Your task to perform on an android device: set default search engine in the chrome app Image 0: 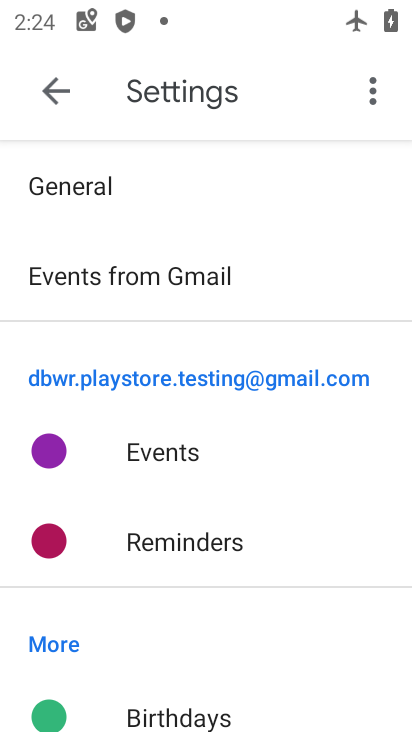
Step 0: press home button
Your task to perform on an android device: set default search engine in the chrome app Image 1: 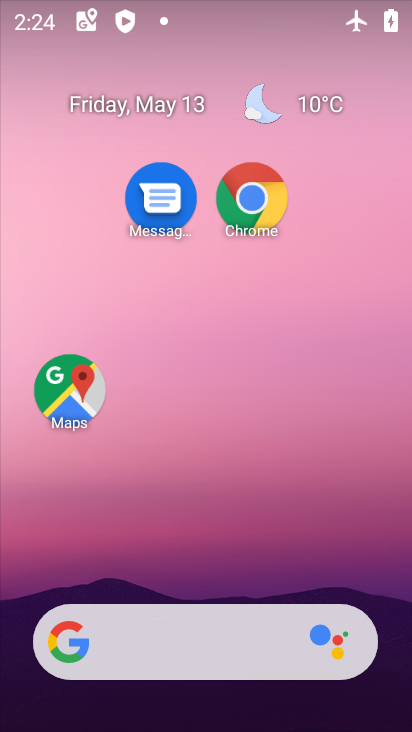
Step 1: click (264, 183)
Your task to perform on an android device: set default search engine in the chrome app Image 2: 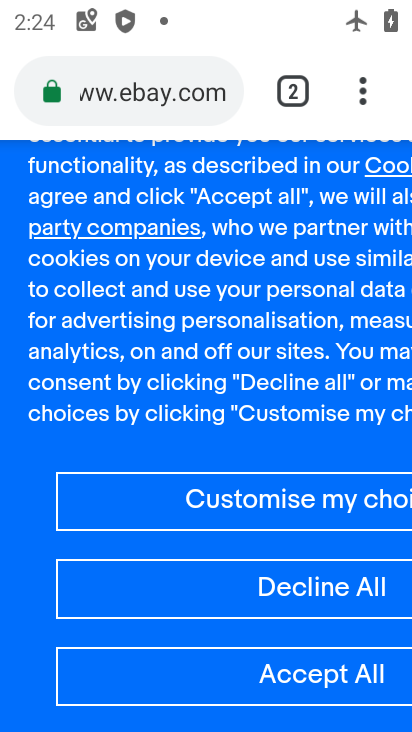
Step 2: click (373, 89)
Your task to perform on an android device: set default search engine in the chrome app Image 3: 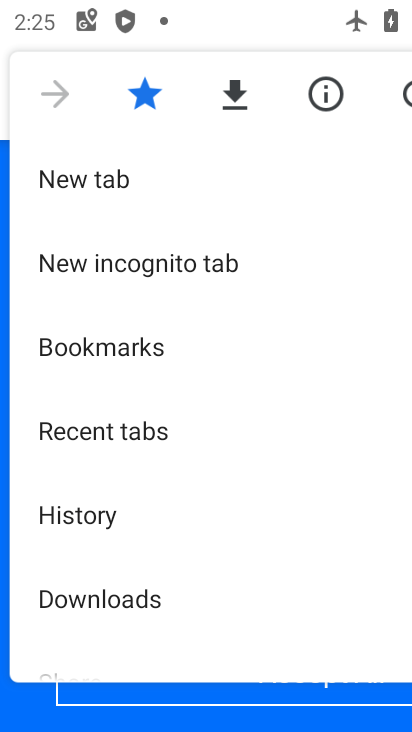
Step 3: drag from (106, 549) to (133, 95)
Your task to perform on an android device: set default search engine in the chrome app Image 4: 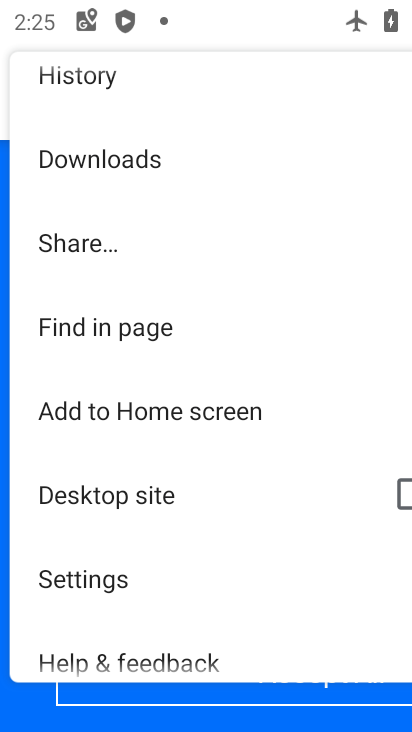
Step 4: click (136, 241)
Your task to perform on an android device: set default search engine in the chrome app Image 5: 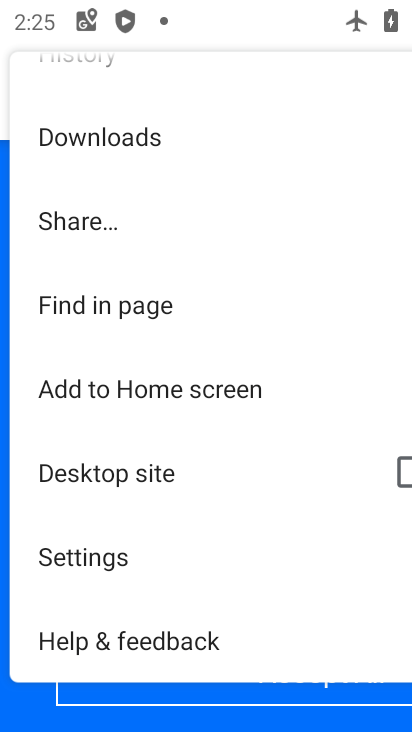
Step 5: click (118, 550)
Your task to perform on an android device: set default search engine in the chrome app Image 6: 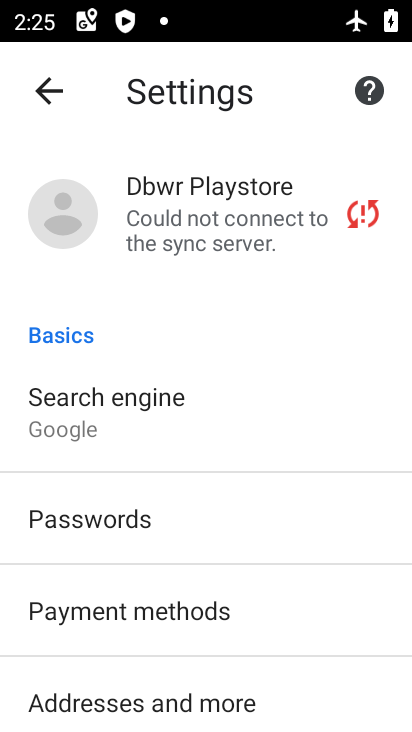
Step 6: click (83, 424)
Your task to perform on an android device: set default search engine in the chrome app Image 7: 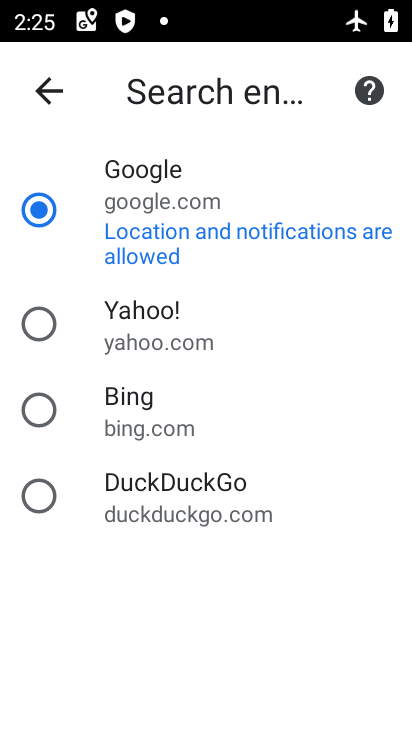
Step 7: click (74, 185)
Your task to perform on an android device: set default search engine in the chrome app Image 8: 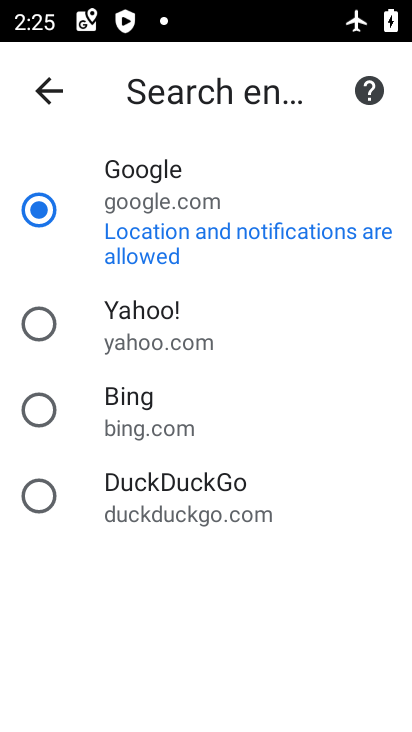
Step 8: task complete